Your task to perform on an android device: Open the calendar app, open the side menu, and click the "Day" option Image 0: 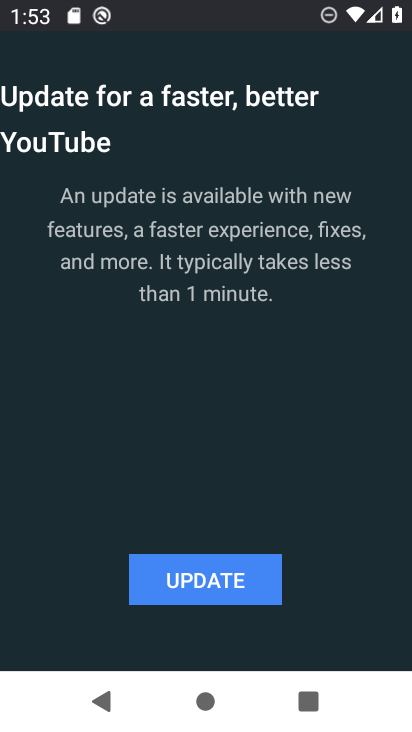
Step 0: press home button
Your task to perform on an android device: Open the calendar app, open the side menu, and click the "Day" option Image 1: 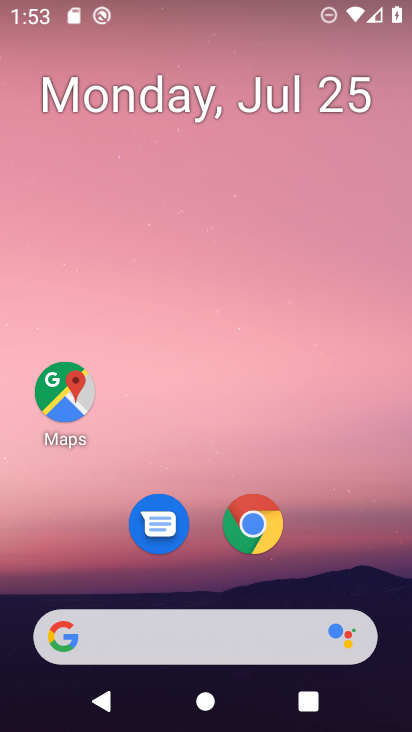
Step 1: drag from (214, 643) to (329, 65)
Your task to perform on an android device: Open the calendar app, open the side menu, and click the "Day" option Image 2: 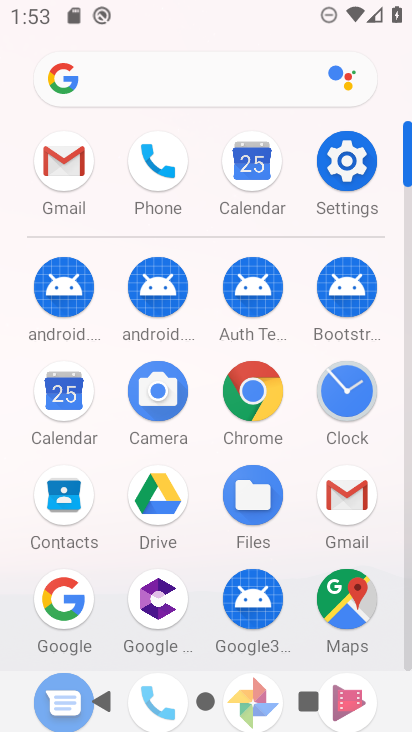
Step 2: click (64, 385)
Your task to perform on an android device: Open the calendar app, open the side menu, and click the "Day" option Image 3: 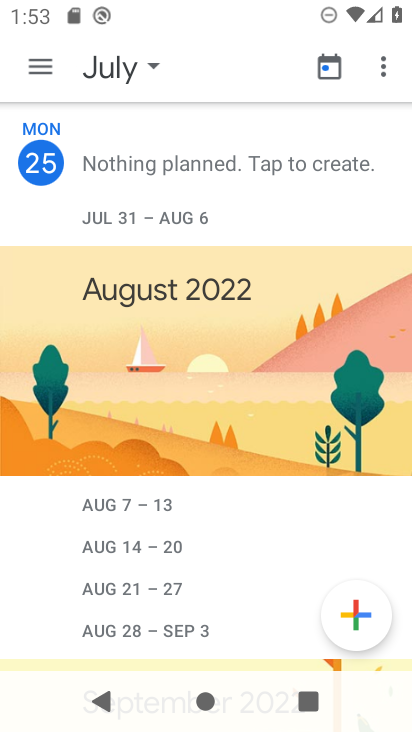
Step 3: click (47, 72)
Your task to perform on an android device: Open the calendar app, open the side menu, and click the "Day" option Image 4: 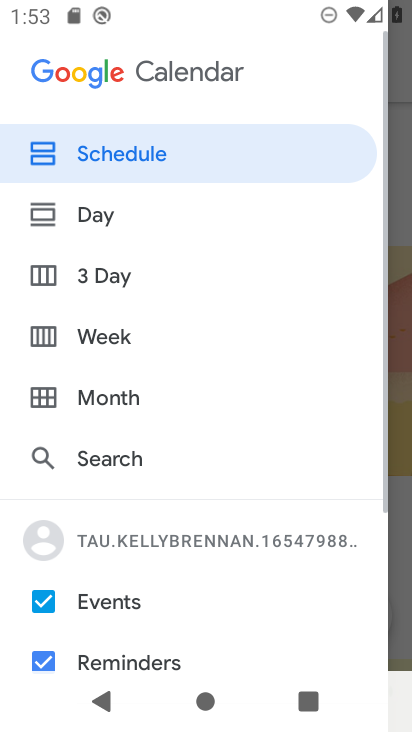
Step 4: click (91, 221)
Your task to perform on an android device: Open the calendar app, open the side menu, and click the "Day" option Image 5: 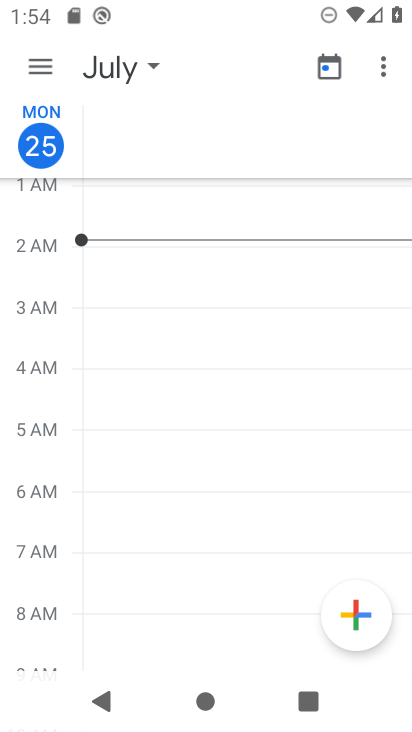
Step 5: task complete